Your task to perform on an android device: Open calendar and show me the third week of next month Image 0: 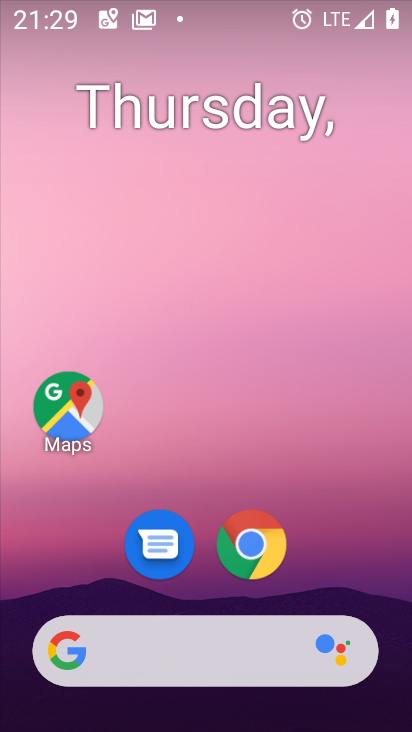
Step 0: click (195, 104)
Your task to perform on an android device: Open calendar and show me the third week of next month Image 1: 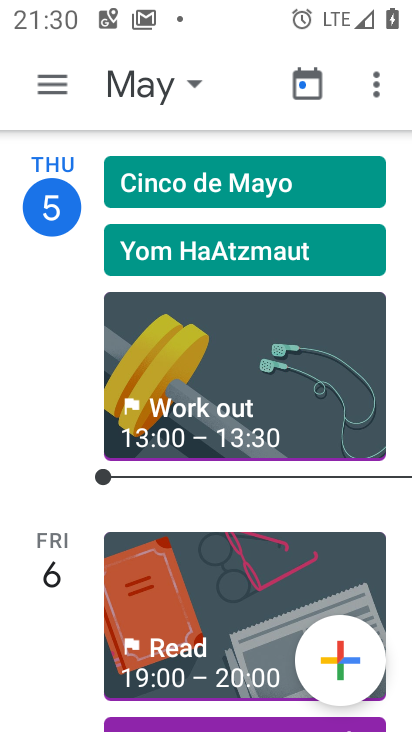
Step 1: click (180, 73)
Your task to perform on an android device: Open calendar and show me the third week of next month Image 2: 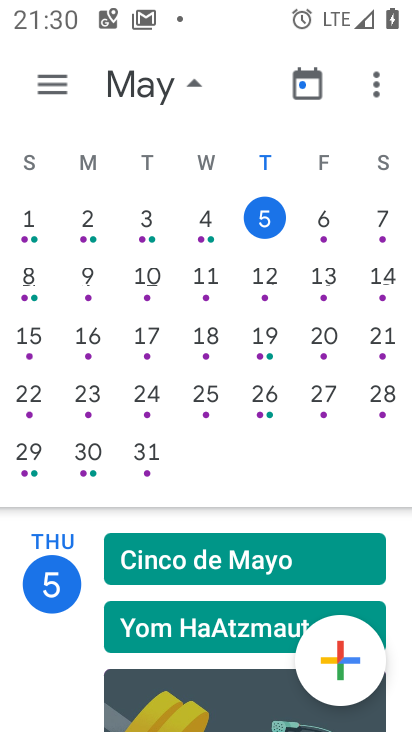
Step 2: drag from (368, 429) to (70, 614)
Your task to perform on an android device: Open calendar and show me the third week of next month Image 3: 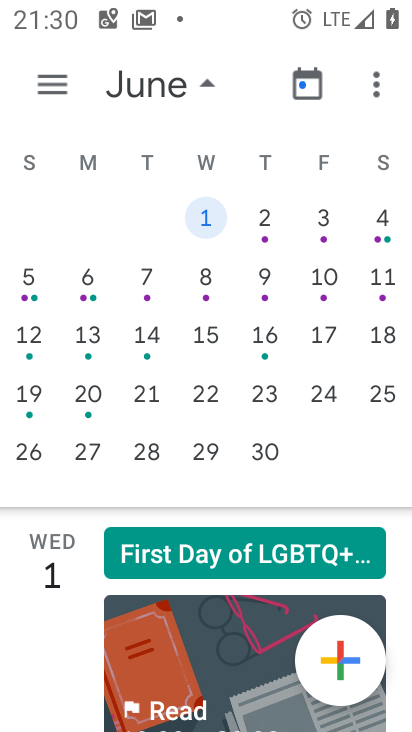
Step 3: drag from (368, 497) to (121, 502)
Your task to perform on an android device: Open calendar and show me the third week of next month Image 4: 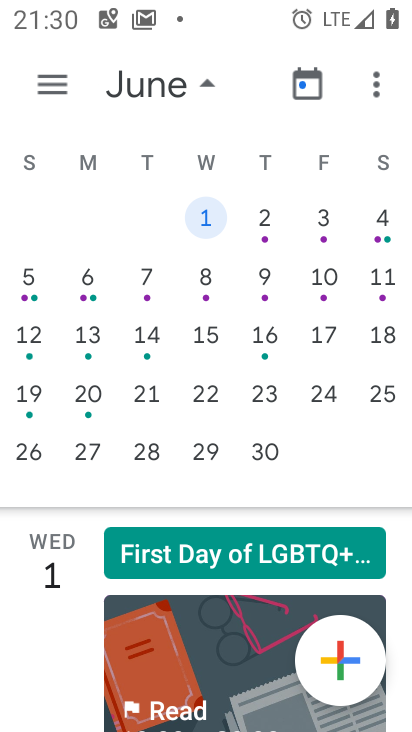
Step 4: click (215, 336)
Your task to perform on an android device: Open calendar and show me the third week of next month Image 5: 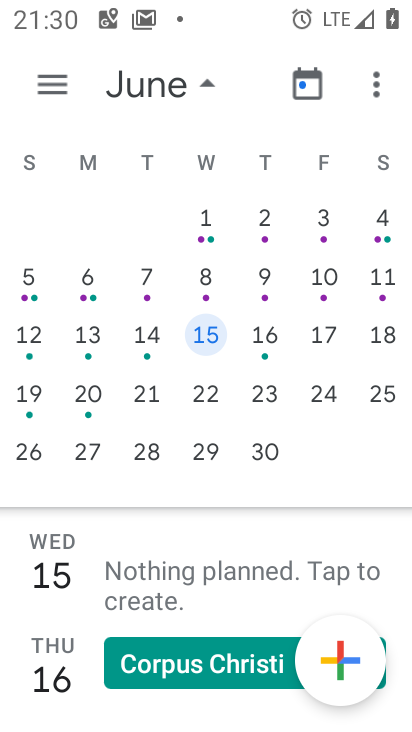
Step 5: task complete